Your task to perform on an android device: Search for a good pizza place on Maps Image 0: 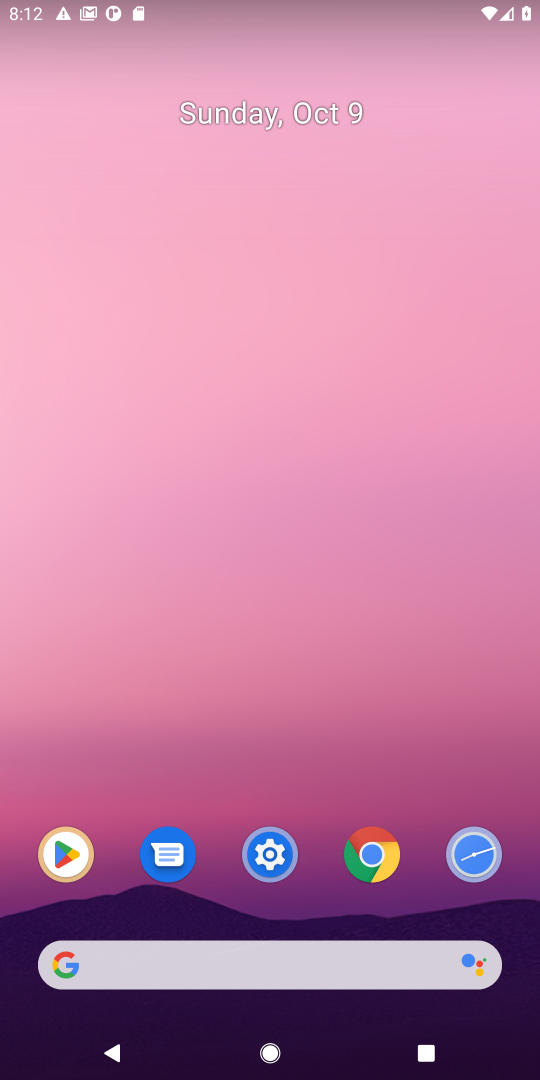
Step 0: drag from (320, 931) to (343, 132)
Your task to perform on an android device: Search for a good pizza place on Maps Image 1: 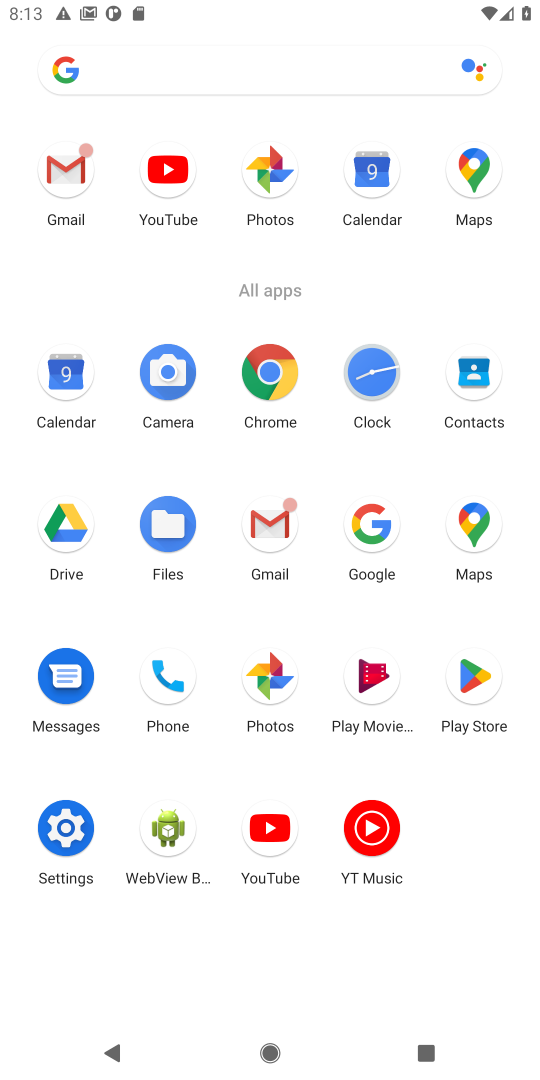
Step 1: click (467, 543)
Your task to perform on an android device: Search for a good pizza place on Maps Image 2: 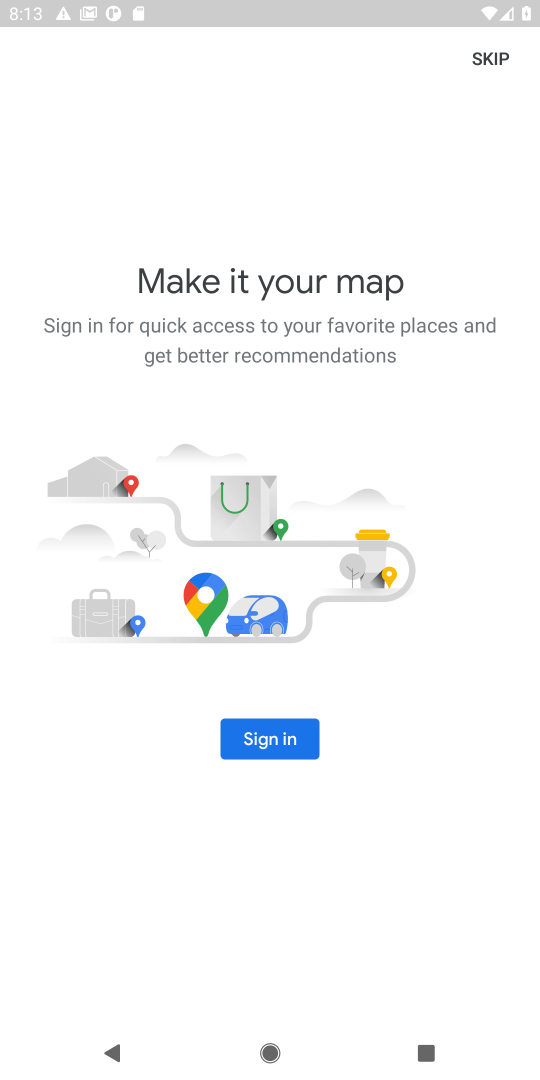
Step 2: click (493, 53)
Your task to perform on an android device: Search for a good pizza place on Maps Image 3: 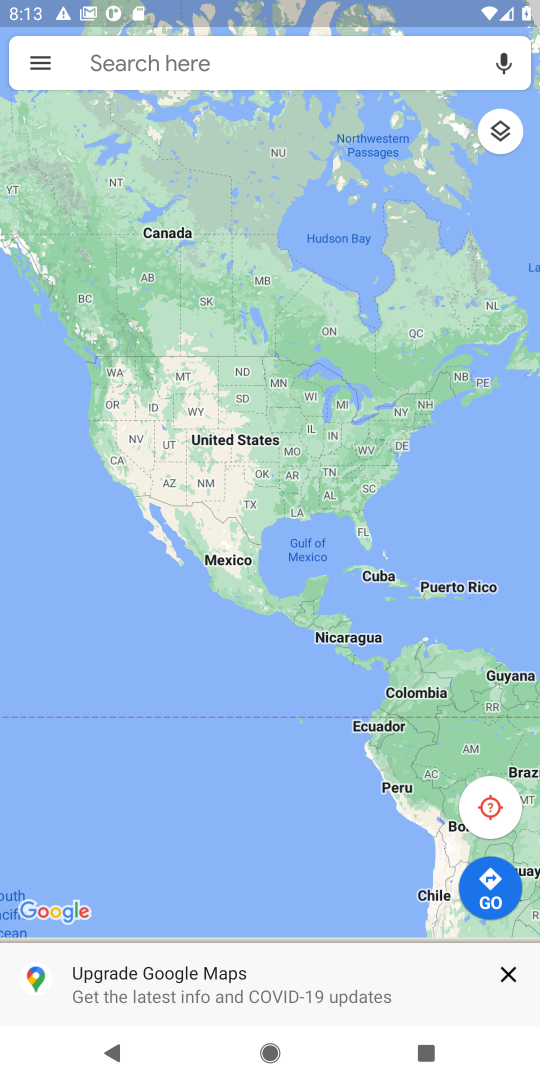
Step 3: click (343, 71)
Your task to perform on an android device: Search for a good pizza place on Maps Image 4: 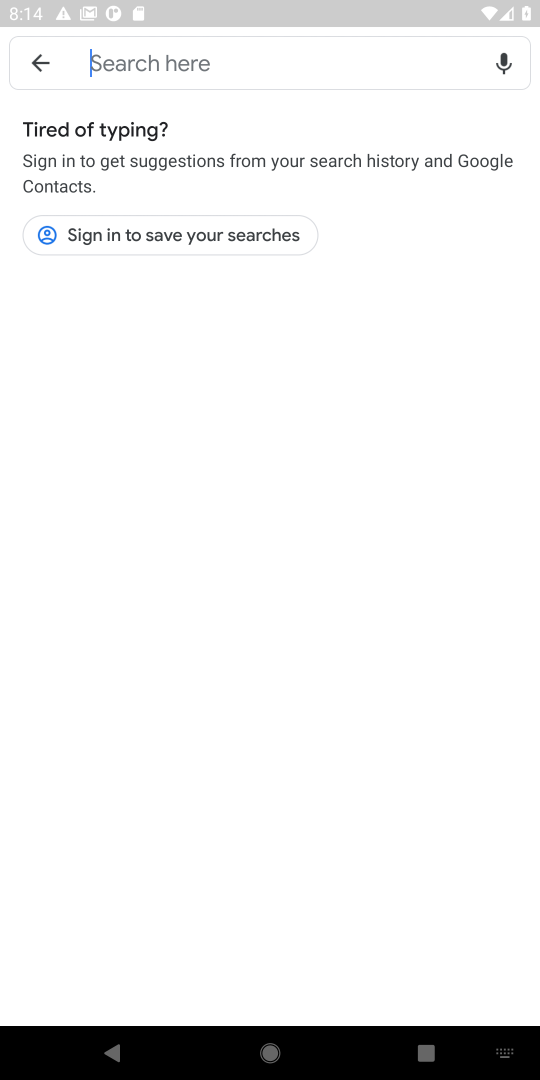
Step 4: type "good pizza place on Maps"
Your task to perform on an android device: Search for a good pizza place on Maps Image 5: 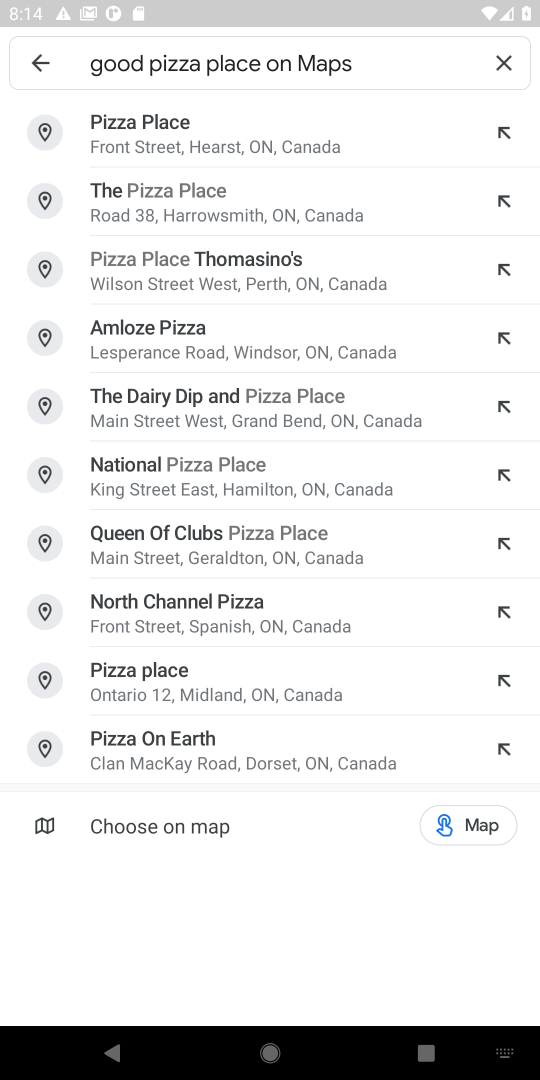
Step 5: click (162, 118)
Your task to perform on an android device: Search for a good pizza place on Maps Image 6: 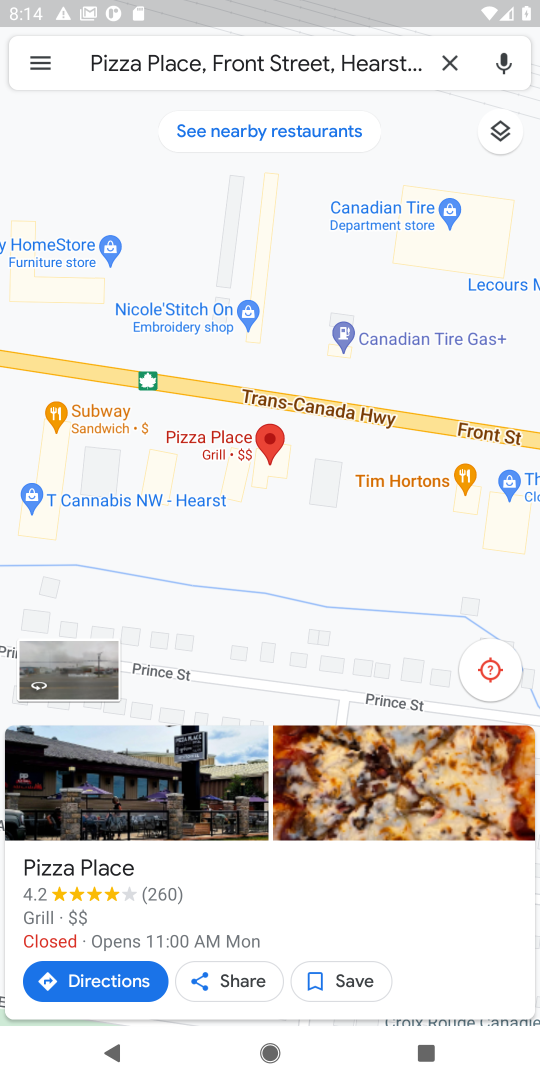
Step 6: task complete